Your task to perform on an android device: open a bookmark in the chrome app Image 0: 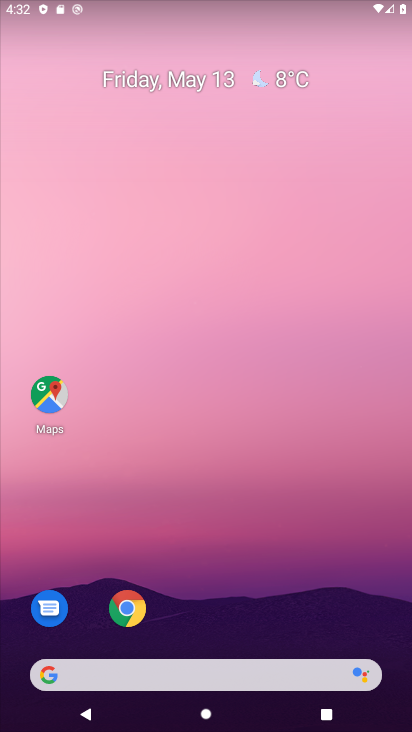
Step 0: click (126, 608)
Your task to perform on an android device: open a bookmark in the chrome app Image 1: 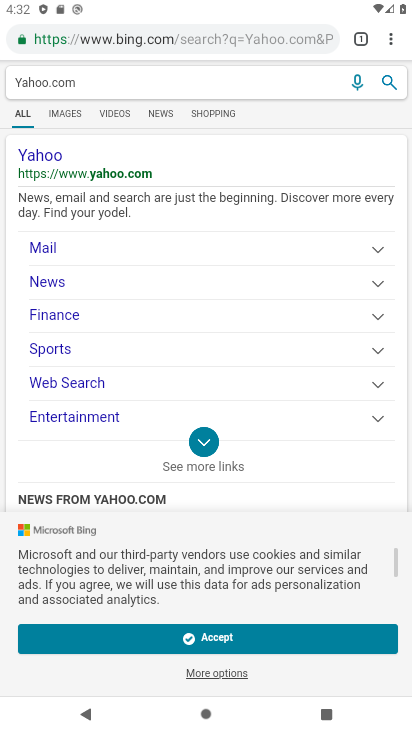
Step 1: click (392, 37)
Your task to perform on an android device: open a bookmark in the chrome app Image 2: 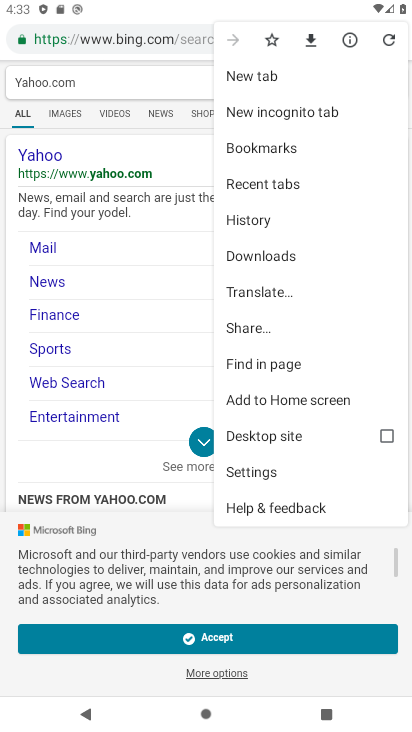
Step 2: click (275, 151)
Your task to perform on an android device: open a bookmark in the chrome app Image 3: 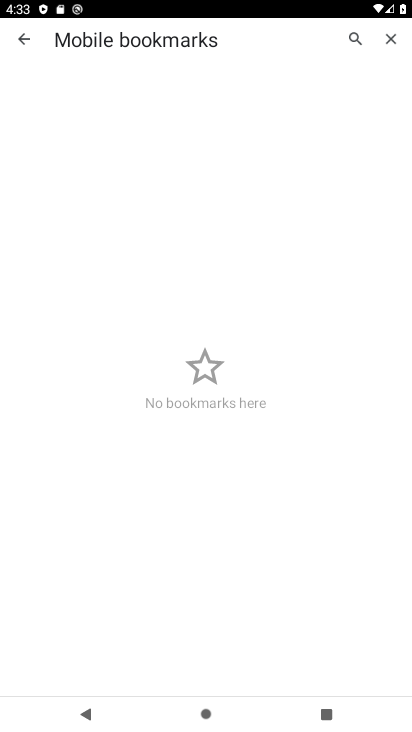
Step 3: task complete